Your task to perform on an android device: Open Chrome and go to settings Image 0: 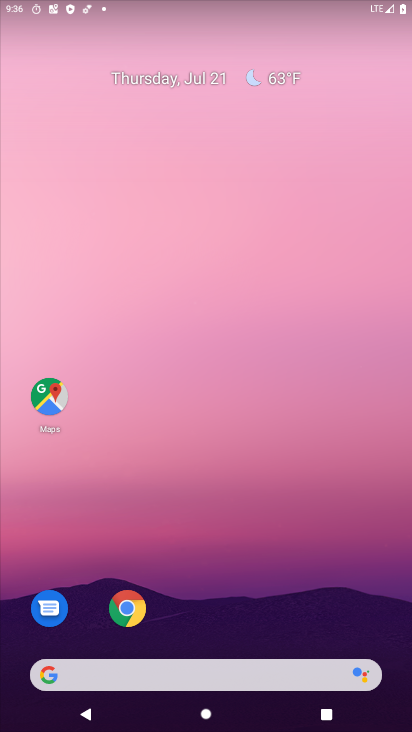
Step 0: drag from (214, 675) to (222, 133)
Your task to perform on an android device: Open Chrome and go to settings Image 1: 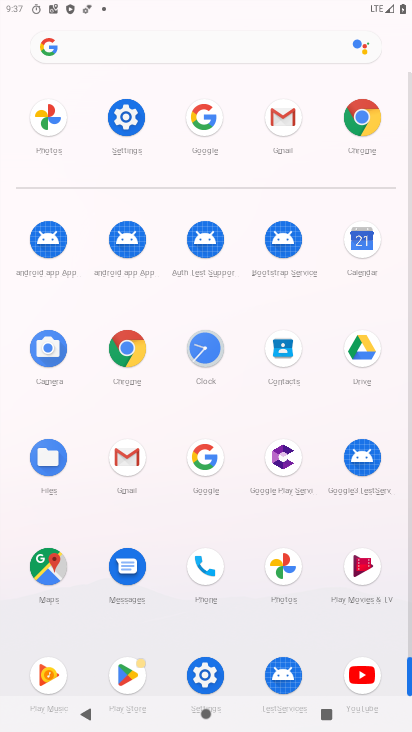
Step 1: click (122, 384)
Your task to perform on an android device: Open Chrome and go to settings Image 2: 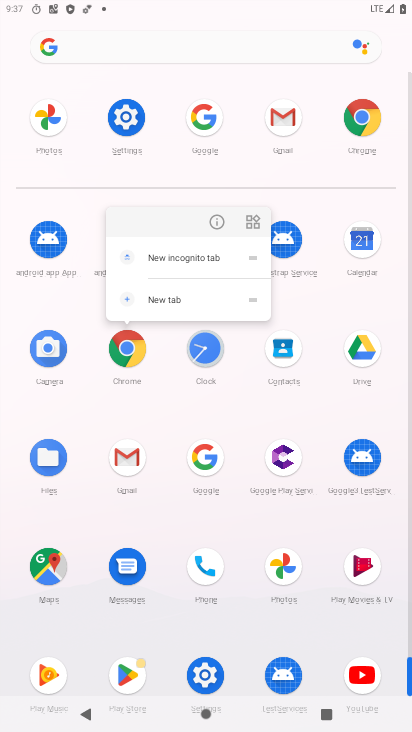
Step 2: click (123, 359)
Your task to perform on an android device: Open Chrome and go to settings Image 3: 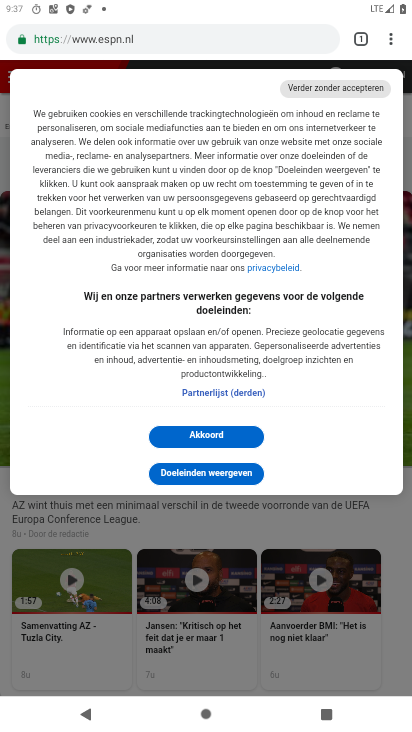
Step 3: click (391, 44)
Your task to perform on an android device: Open Chrome and go to settings Image 4: 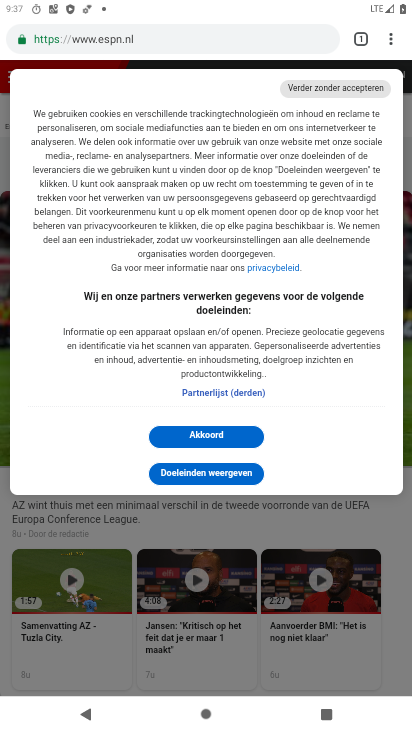
Step 4: click (388, 37)
Your task to perform on an android device: Open Chrome and go to settings Image 5: 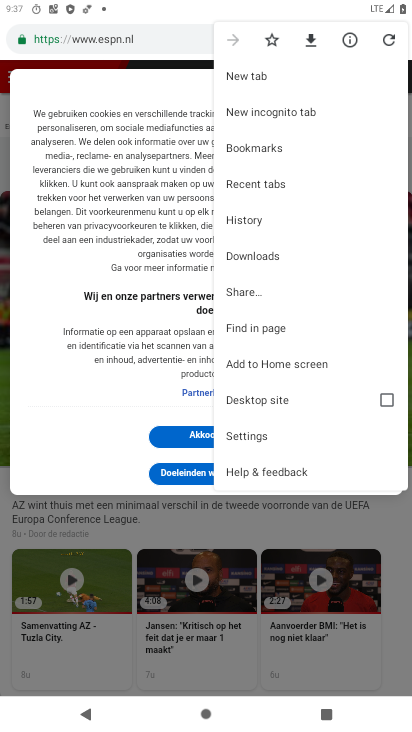
Step 5: click (256, 434)
Your task to perform on an android device: Open Chrome and go to settings Image 6: 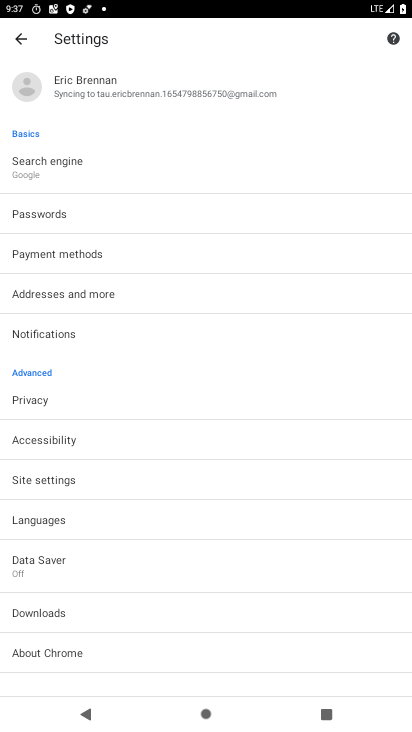
Step 6: task complete